Your task to perform on an android device: turn off translation in the chrome app Image 0: 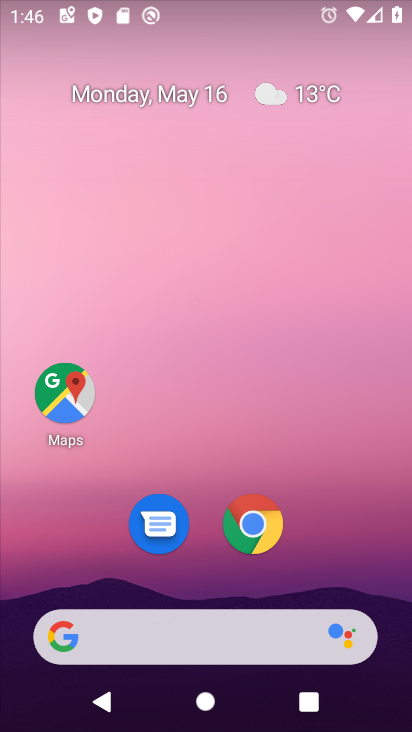
Step 0: click (264, 519)
Your task to perform on an android device: turn off translation in the chrome app Image 1: 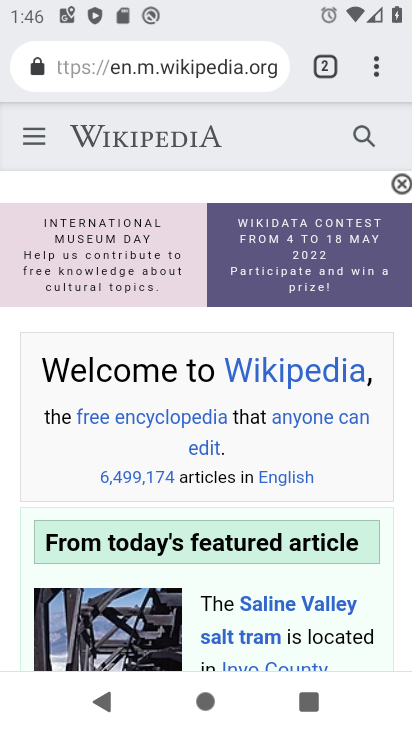
Step 1: click (371, 73)
Your task to perform on an android device: turn off translation in the chrome app Image 2: 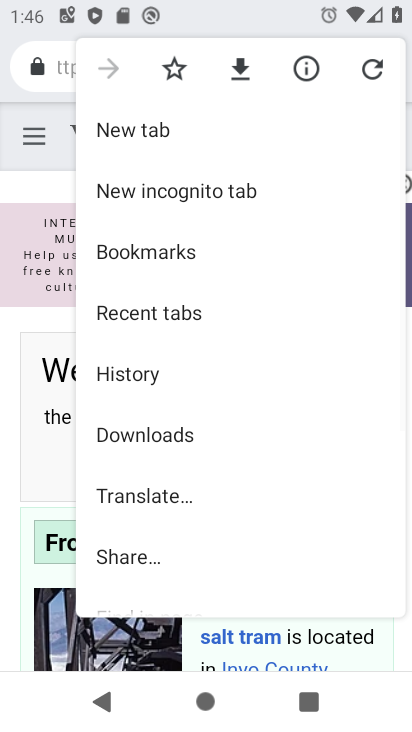
Step 2: drag from (251, 463) to (278, 136)
Your task to perform on an android device: turn off translation in the chrome app Image 3: 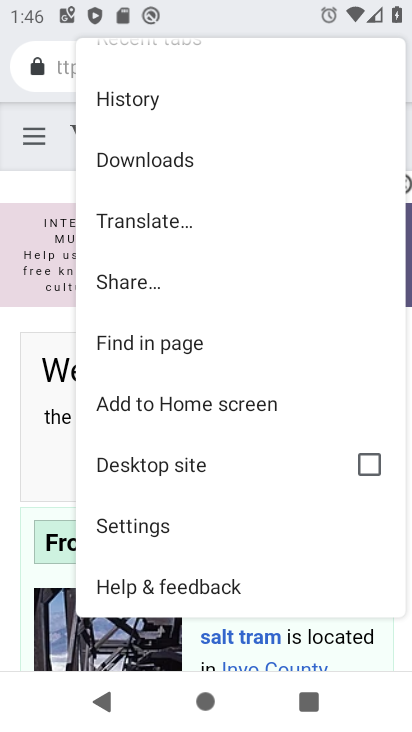
Step 3: click (167, 522)
Your task to perform on an android device: turn off translation in the chrome app Image 4: 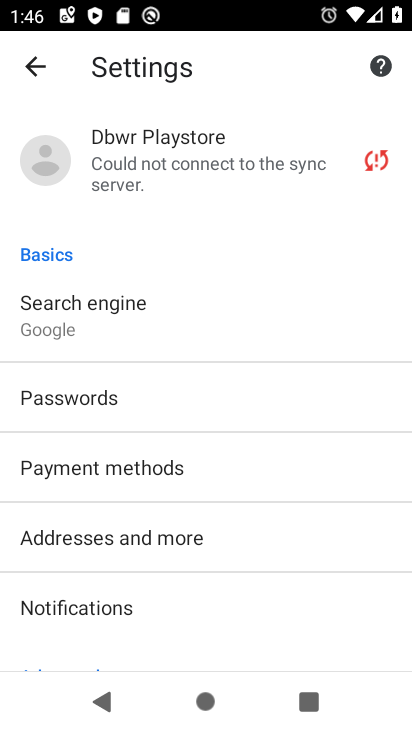
Step 4: drag from (264, 516) to (277, 168)
Your task to perform on an android device: turn off translation in the chrome app Image 5: 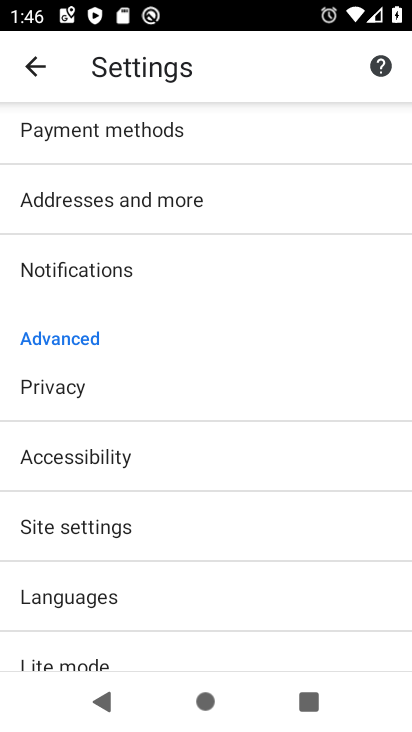
Step 5: click (180, 603)
Your task to perform on an android device: turn off translation in the chrome app Image 6: 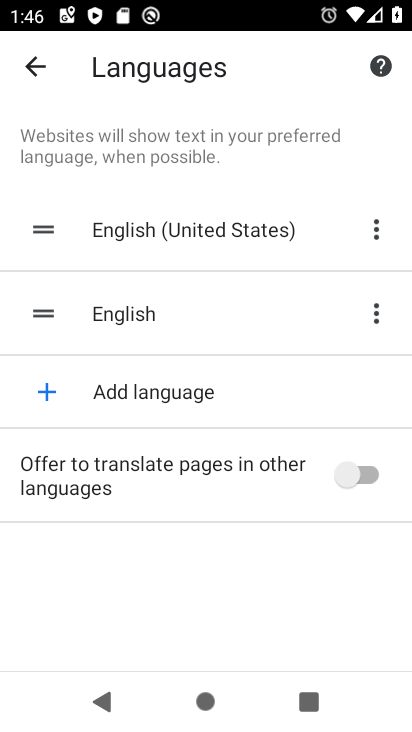
Step 6: task complete